Your task to perform on an android device: Open privacy settings Image 0: 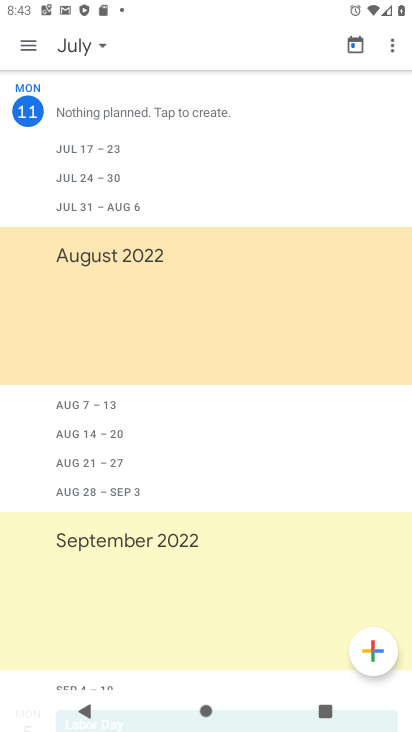
Step 0: press home button
Your task to perform on an android device: Open privacy settings Image 1: 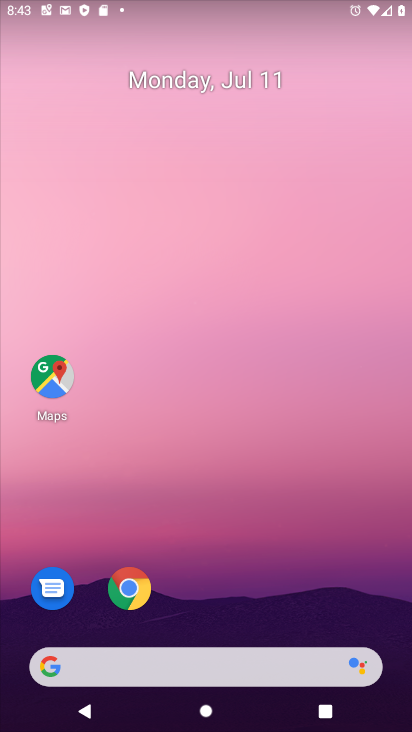
Step 1: drag from (209, 669) to (332, 59)
Your task to perform on an android device: Open privacy settings Image 2: 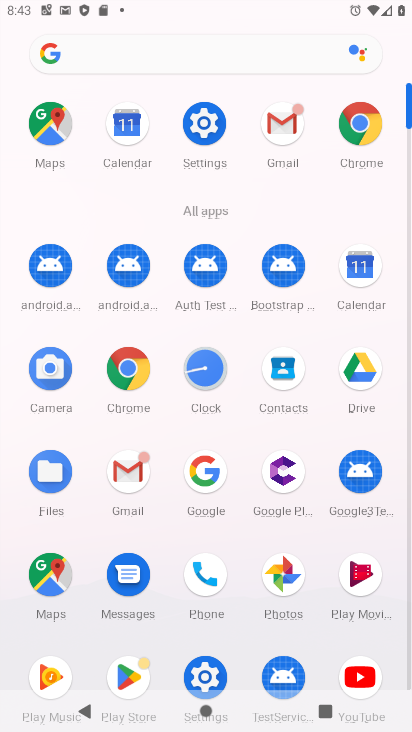
Step 2: click (204, 129)
Your task to perform on an android device: Open privacy settings Image 3: 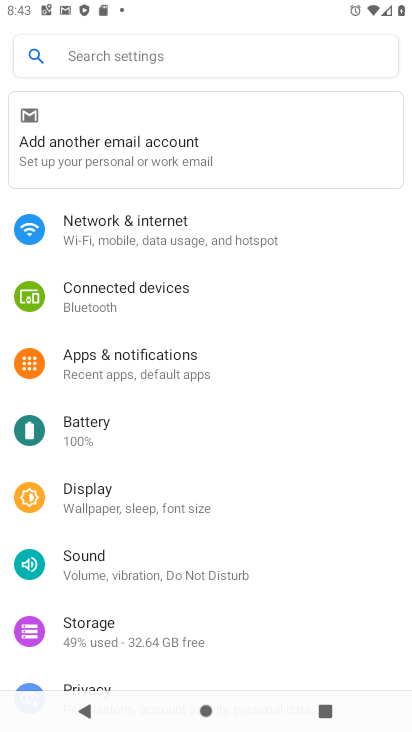
Step 3: drag from (250, 576) to (381, 300)
Your task to perform on an android device: Open privacy settings Image 4: 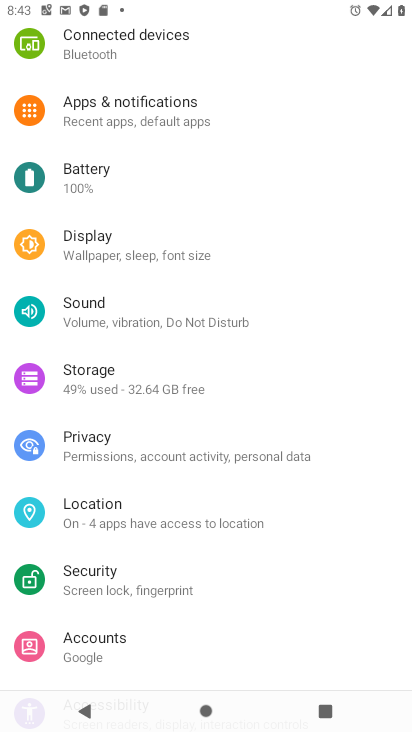
Step 4: click (104, 447)
Your task to perform on an android device: Open privacy settings Image 5: 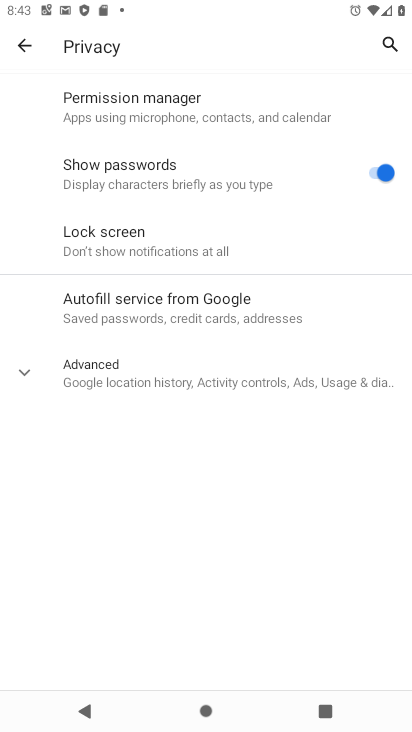
Step 5: task complete